Your task to perform on an android device: change timer sound Image 0: 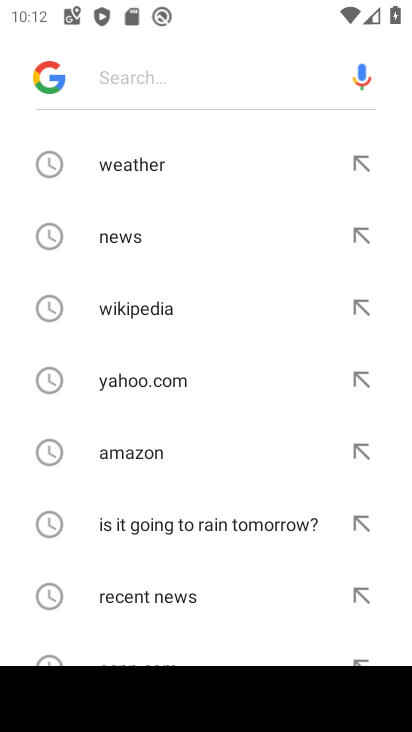
Step 0: press home button
Your task to perform on an android device: change timer sound Image 1: 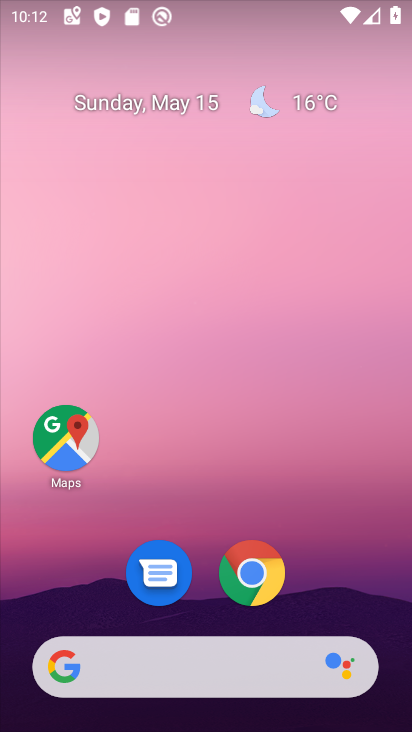
Step 1: drag from (363, 587) to (348, 103)
Your task to perform on an android device: change timer sound Image 2: 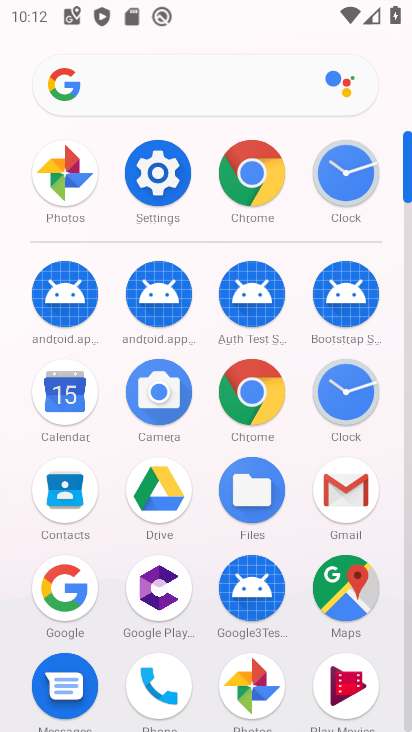
Step 2: click (358, 399)
Your task to perform on an android device: change timer sound Image 3: 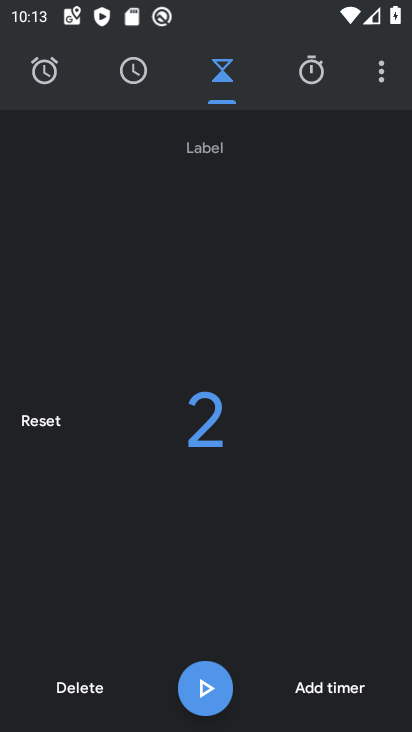
Step 3: click (383, 74)
Your task to perform on an android device: change timer sound Image 4: 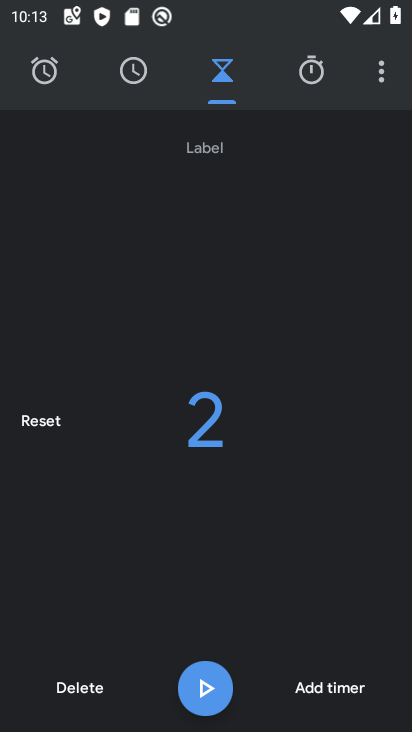
Step 4: click (387, 79)
Your task to perform on an android device: change timer sound Image 5: 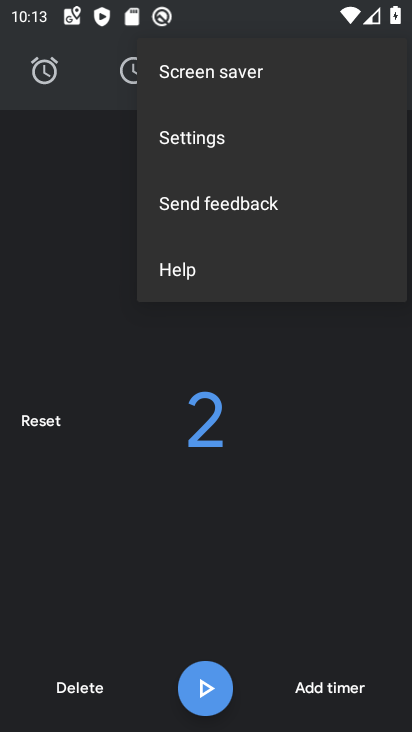
Step 5: click (184, 132)
Your task to perform on an android device: change timer sound Image 6: 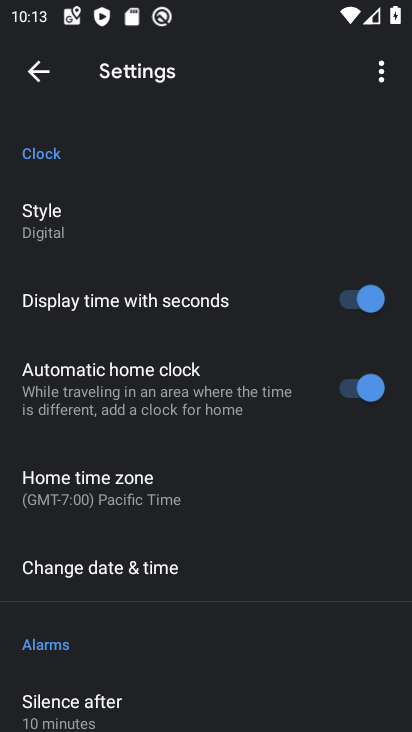
Step 6: drag from (192, 606) to (174, 659)
Your task to perform on an android device: change timer sound Image 7: 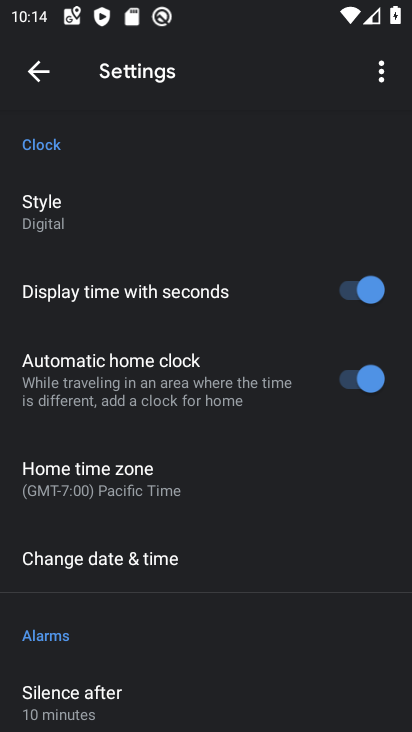
Step 7: click (191, 22)
Your task to perform on an android device: change timer sound Image 8: 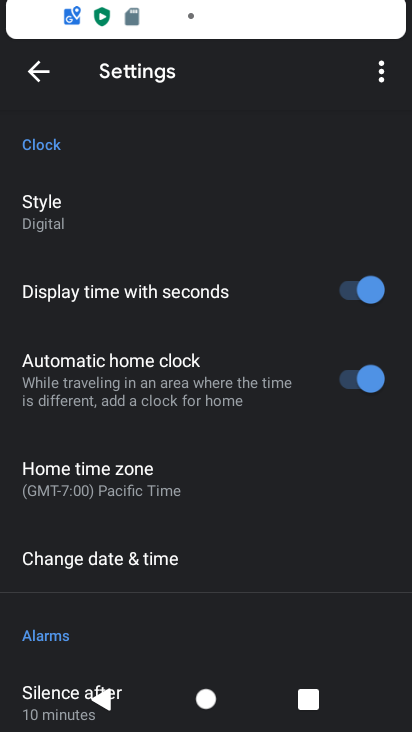
Step 8: drag from (262, 462) to (238, 123)
Your task to perform on an android device: change timer sound Image 9: 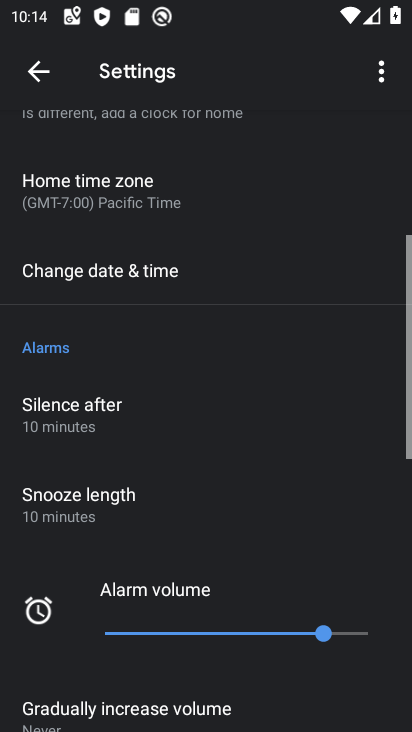
Step 9: drag from (225, 488) to (218, 169)
Your task to perform on an android device: change timer sound Image 10: 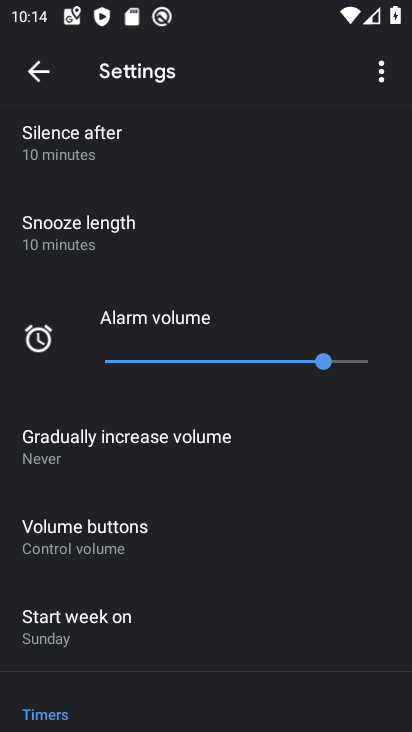
Step 10: drag from (196, 609) to (179, 190)
Your task to perform on an android device: change timer sound Image 11: 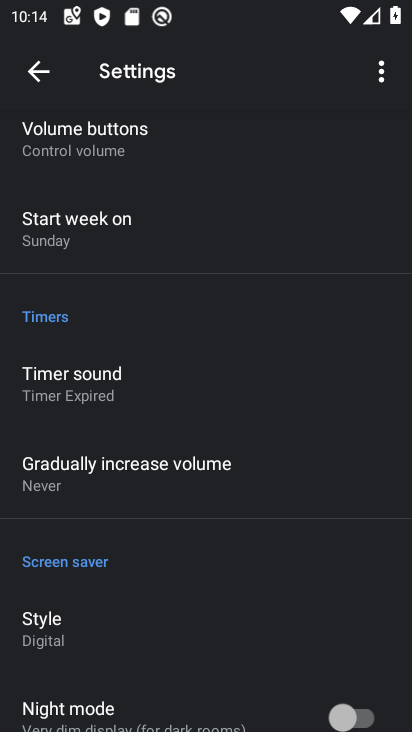
Step 11: drag from (125, 636) to (187, 367)
Your task to perform on an android device: change timer sound Image 12: 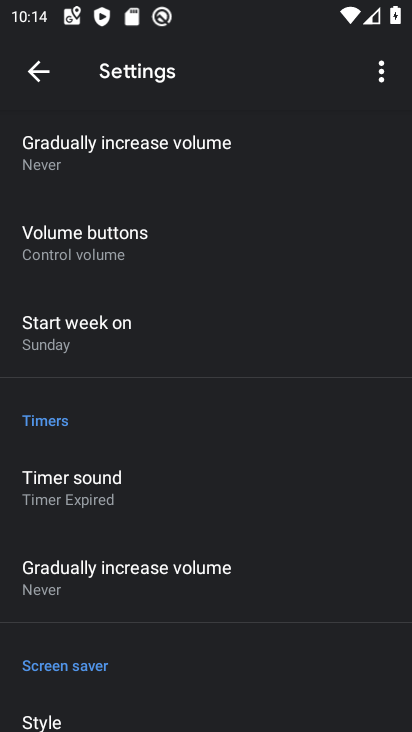
Step 12: click (90, 486)
Your task to perform on an android device: change timer sound Image 13: 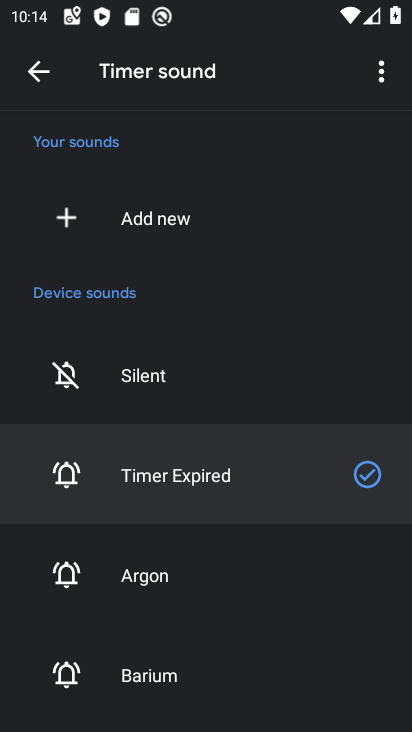
Step 13: click (110, 579)
Your task to perform on an android device: change timer sound Image 14: 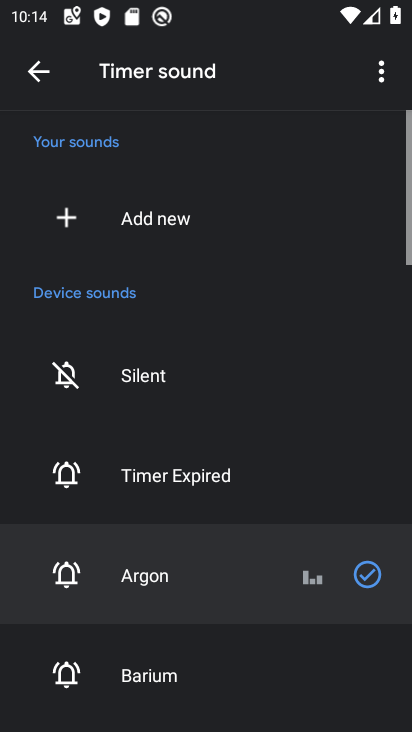
Step 14: task complete